Your task to perform on an android device: How do I get to the nearest Home Depot? Image 0: 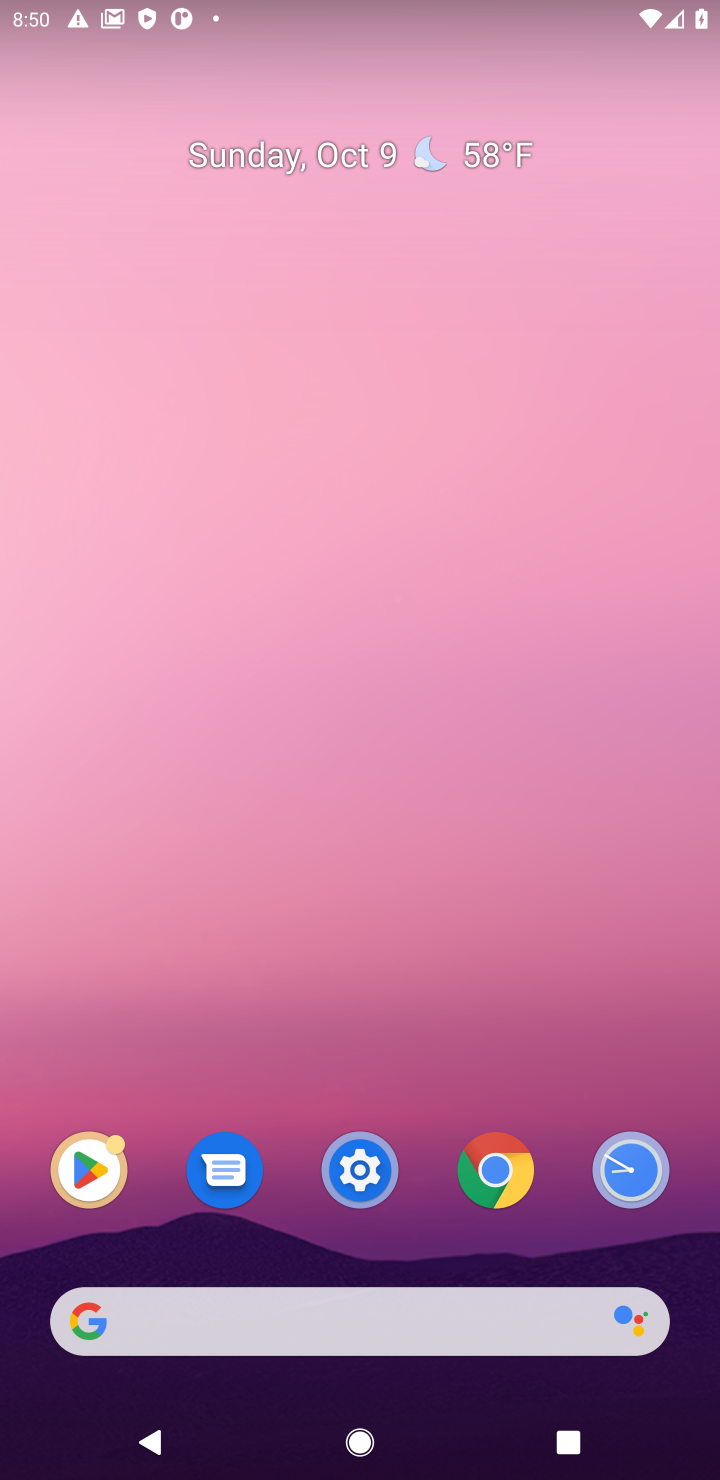
Step 0: click (315, 1328)
Your task to perform on an android device: How do I get to the nearest Home Depot? Image 1: 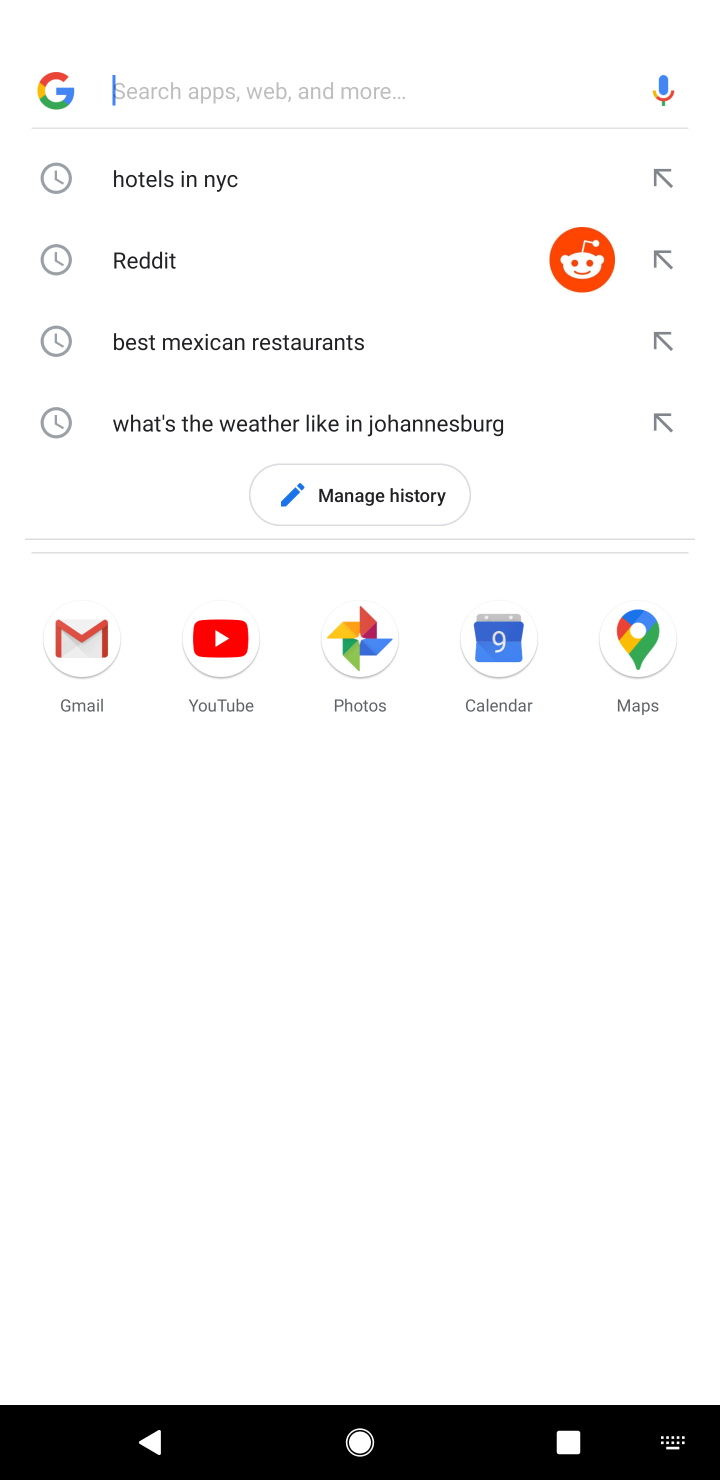
Step 1: type "How do I get to the nearest Home Depot"
Your task to perform on an android device: How do I get to the nearest Home Depot? Image 2: 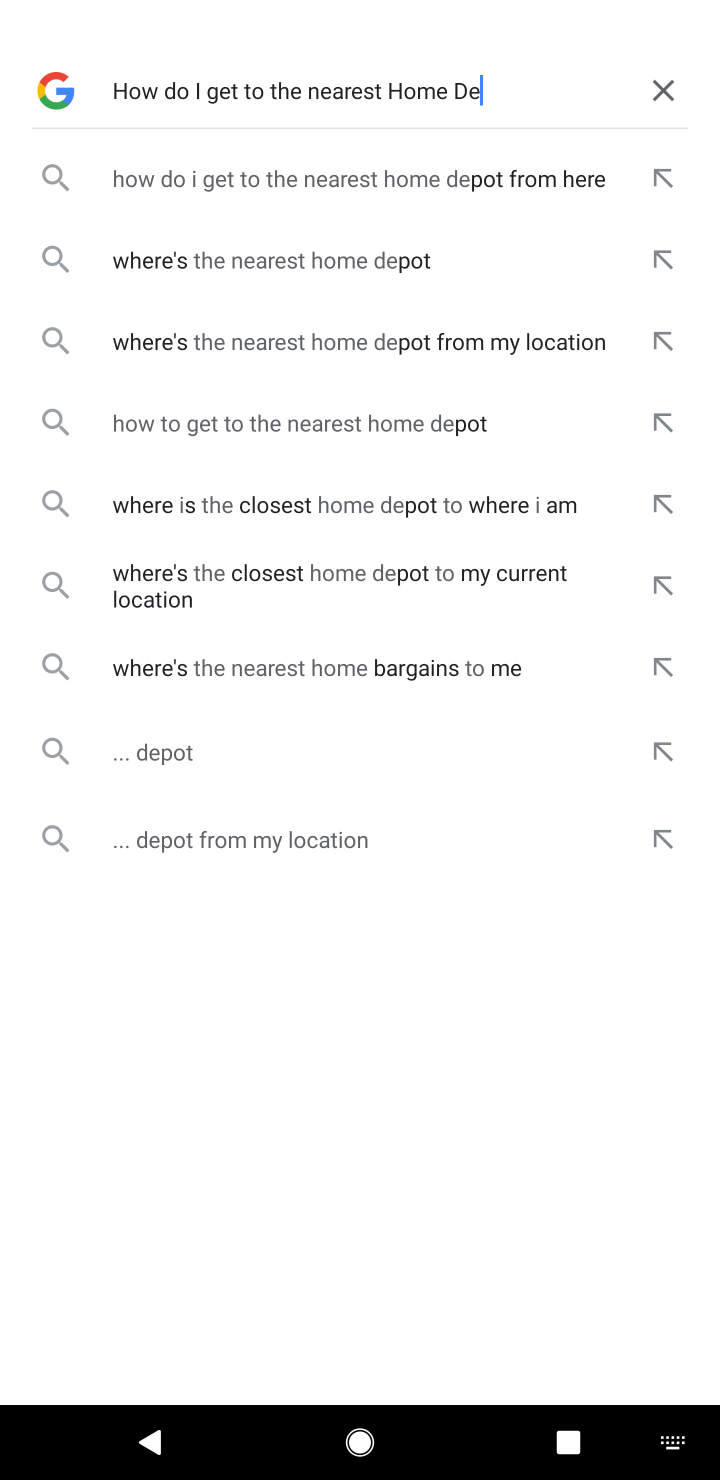
Step 2: click (387, 251)
Your task to perform on an android device: How do I get to the nearest Home Depot? Image 3: 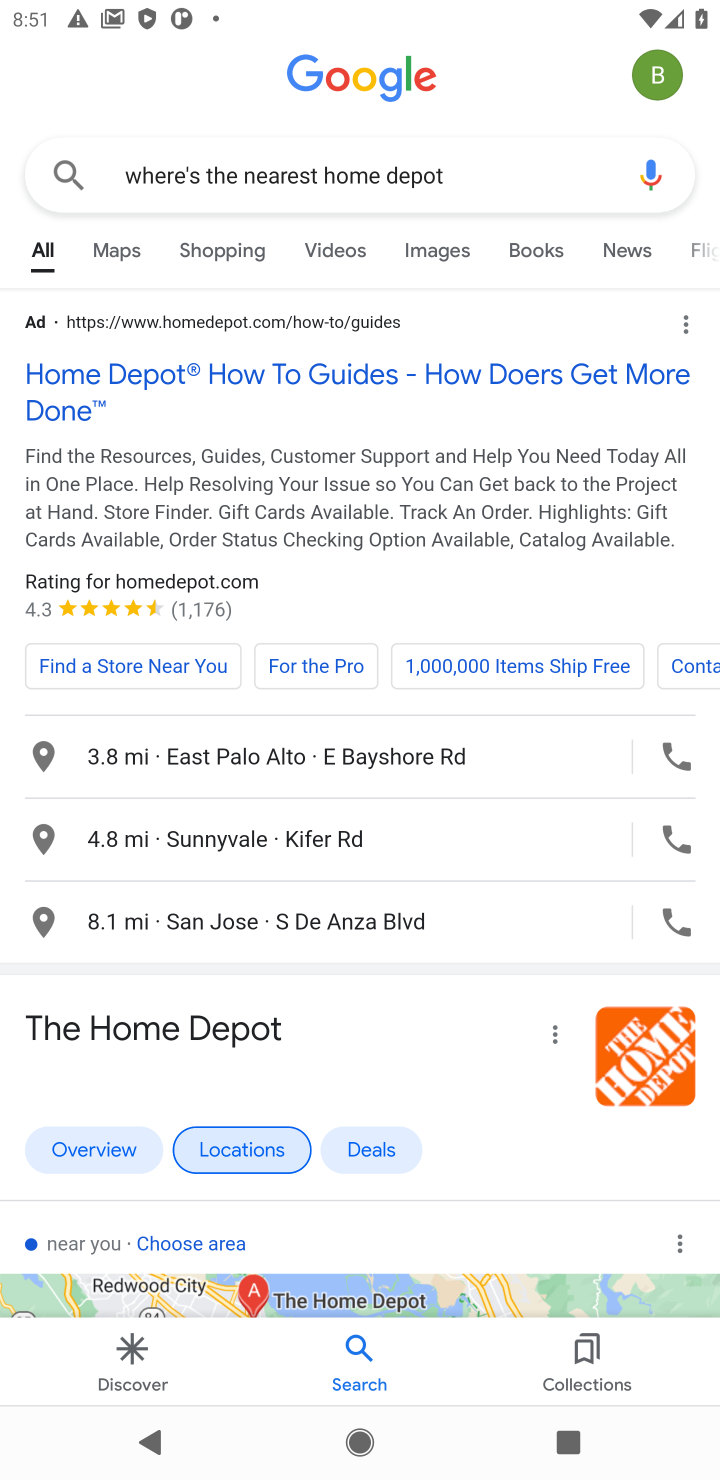
Step 3: task complete